Your task to perform on an android device: Open Google Chrome Image 0: 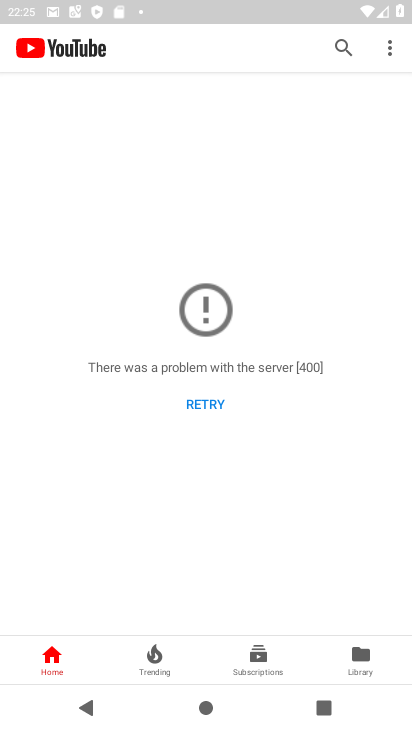
Step 0: press home button
Your task to perform on an android device: Open Google Chrome Image 1: 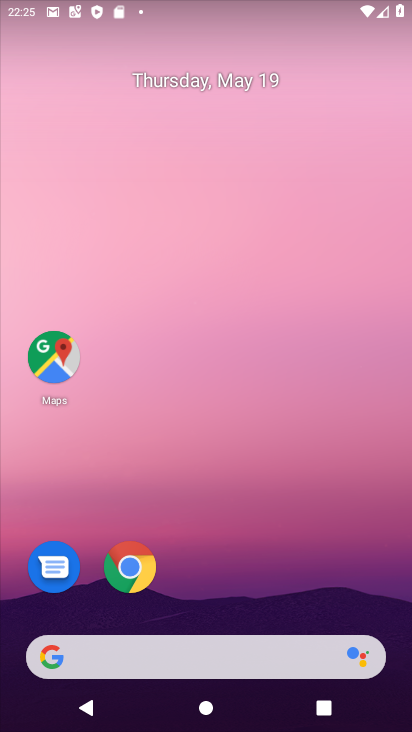
Step 1: click (123, 559)
Your task to perform on an android device: Open Google Chrome Image 2: 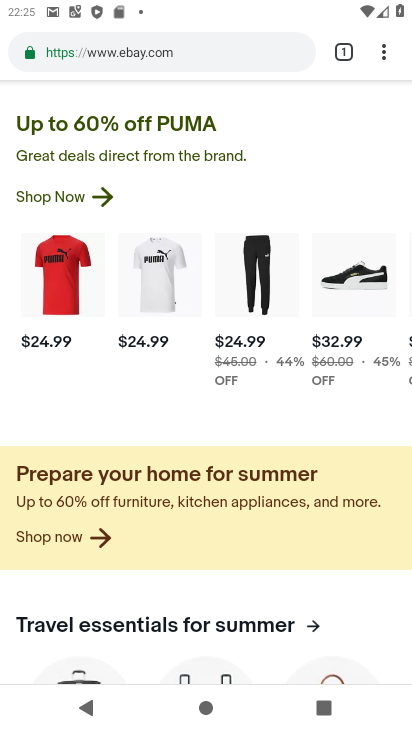
Step 2: click (343, 55)
Your task to perform on an android device: Open Google Chrome Image 3: 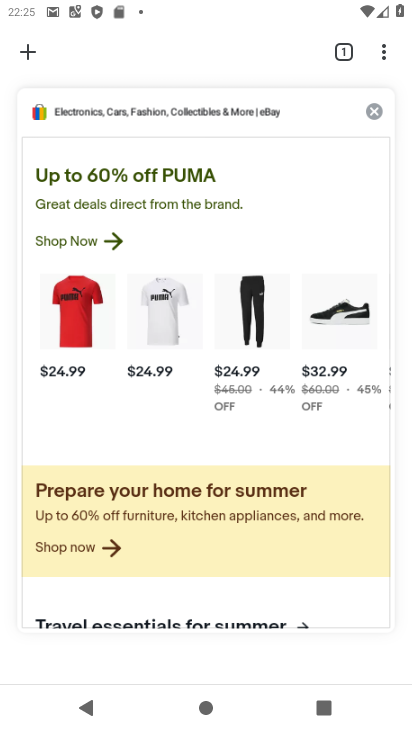
Step 3: click (373, 107)
Your task to perform on an android device: Open Google Chrome Image 4: 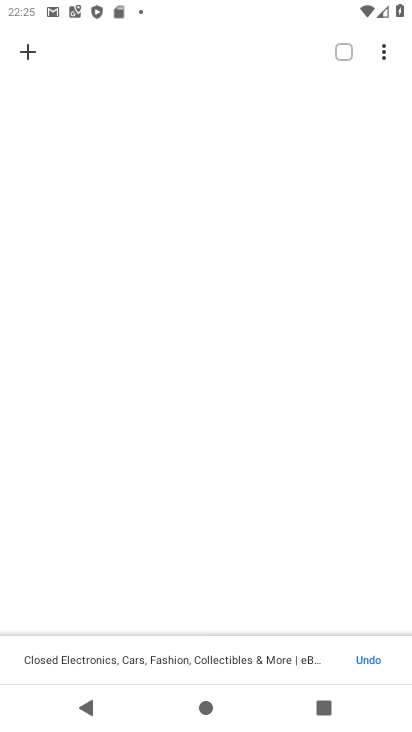
Step 4: click (34, 49)
Your task to perform on an android device: Open Google Chrome Image 5: 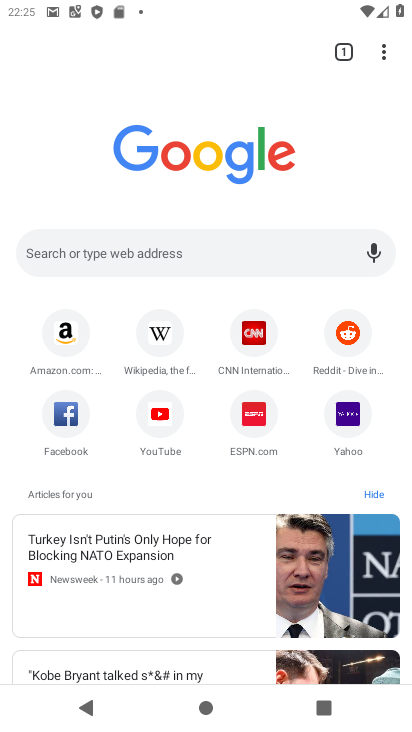
Step 5: task complete